Your task to perform on an android device: toggle javascript in the chrome app Image 0: 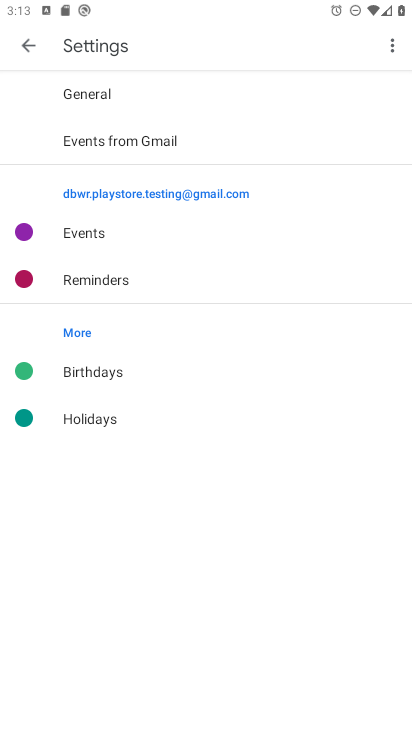
Step 0: press home button
Your task to perform on an android device: toggle javascript in the chrome app Image 1: 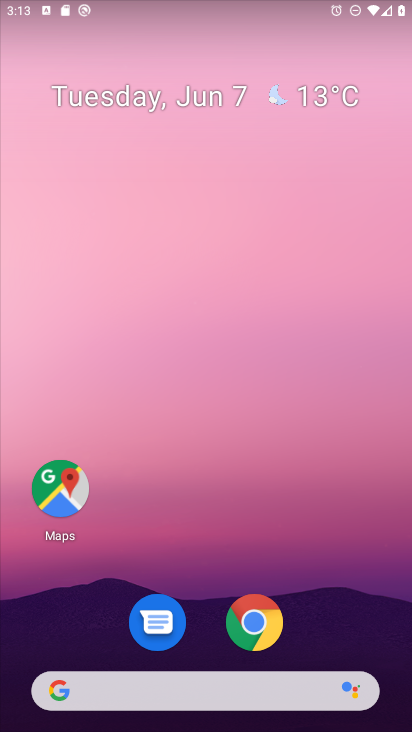
Step 1: click (256, 627)
Your task to perform on an android device: toggle javascript in the chrome app Image 2: 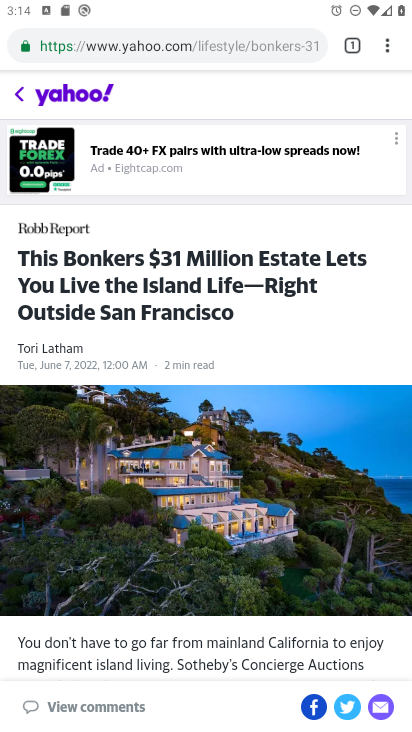
Step 2: click (389, 42)
Your task to perform on an android device: toggle javascript in the chrome app Image 3: 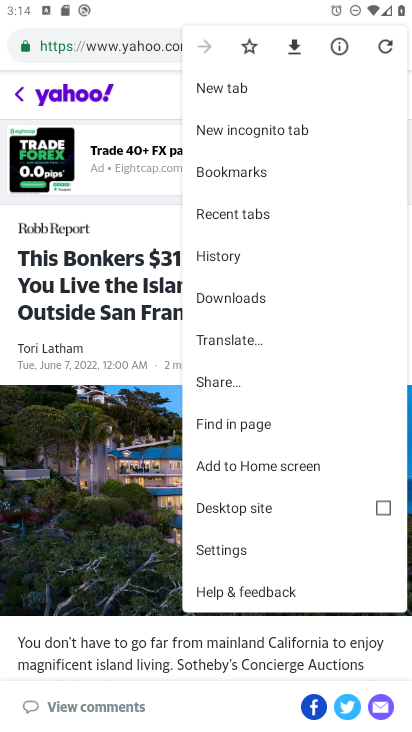
Step 3: click (215, 548)
Your task to perform on an android device: toggle javascript in the chrome app Image 4: 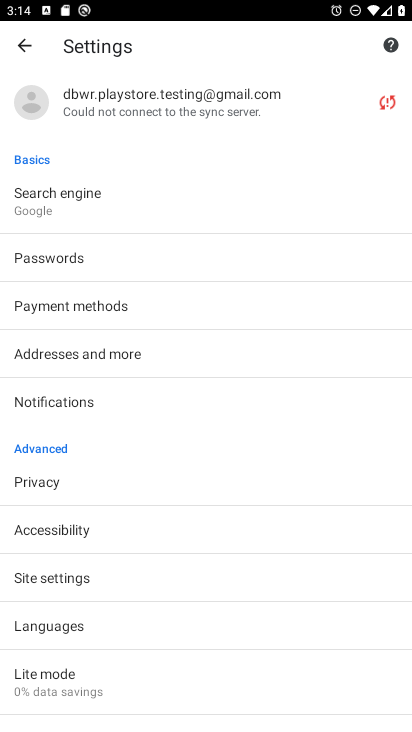
Step 4: click (71, 579)
Your task to perform on an android device: toggle javascript in the chrome app Image 5: 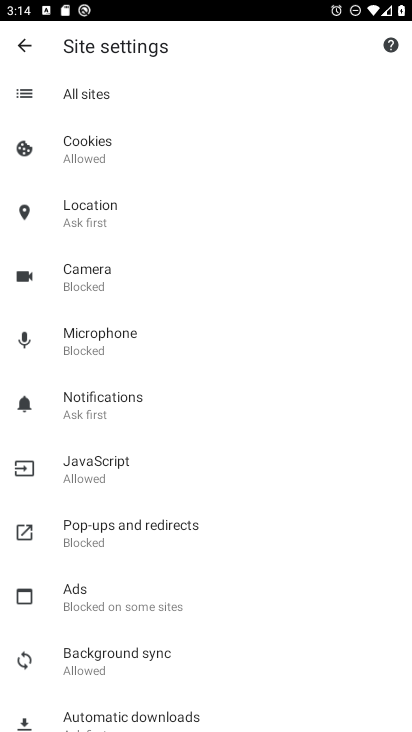
Step 5: click (113, 469)
Your task to perform on an android device: toggle javascript in the chrome app Image 6: 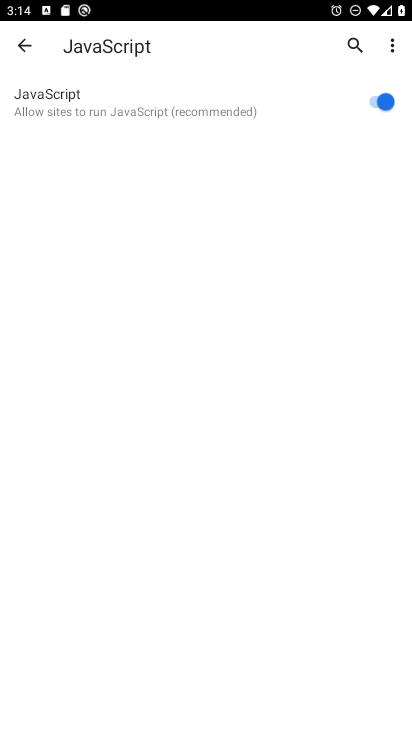
Step 6: click (374, 102)
Your task to perform on an android device: toggle javascript in the chrome app Image 7: 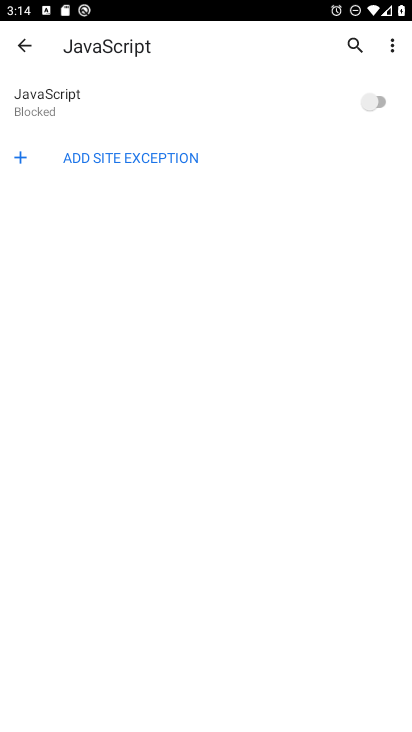
Step 7: task complete